Your task to perform on an android device: Open Google Maps and go to "Timeline" Image 0: 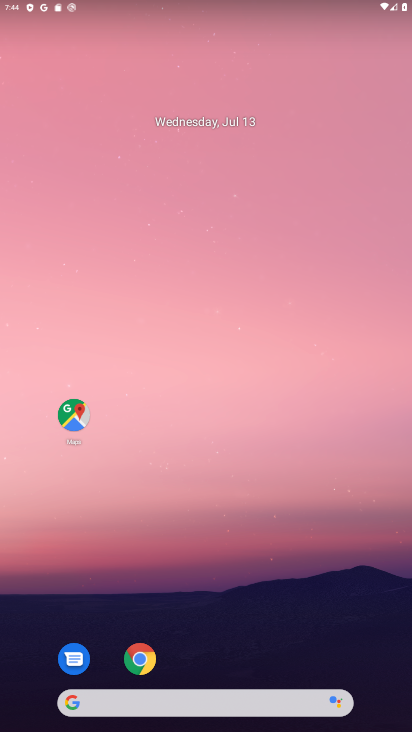
Step 0: click (330, 646)
Your task to perform on an android device: Open Google Maps and go to "Timeline" Image 1: 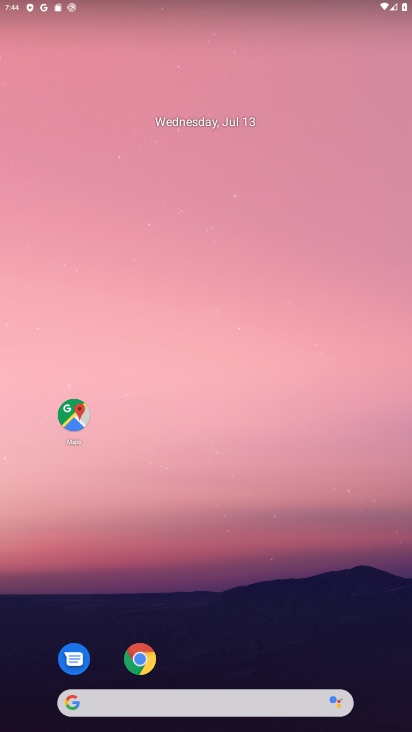
Step 1: click (69, 398)
Your task to perform on an android device: Open Google Maps and go to "Timeline" Image 2: 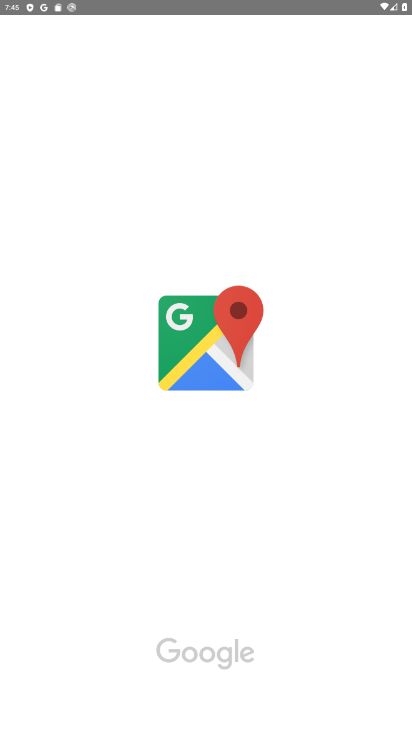
Step 2: task complete